Your task to perform on an android device: find which apps use the phone's location Image 0: 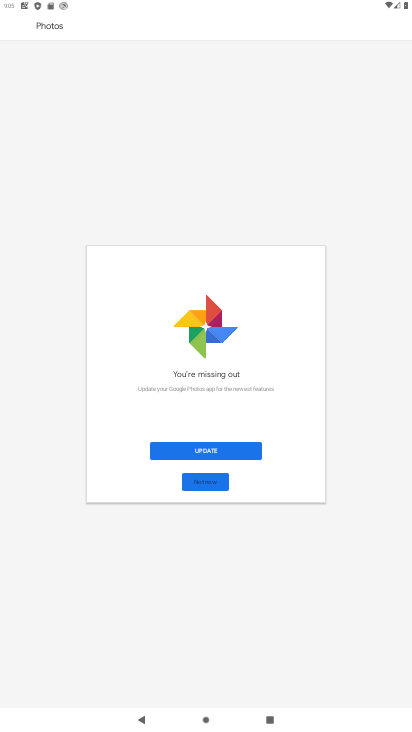
Step 0: click (242, 453)
Your task to perform on an android device: find which apps use the phone's location Image 1: 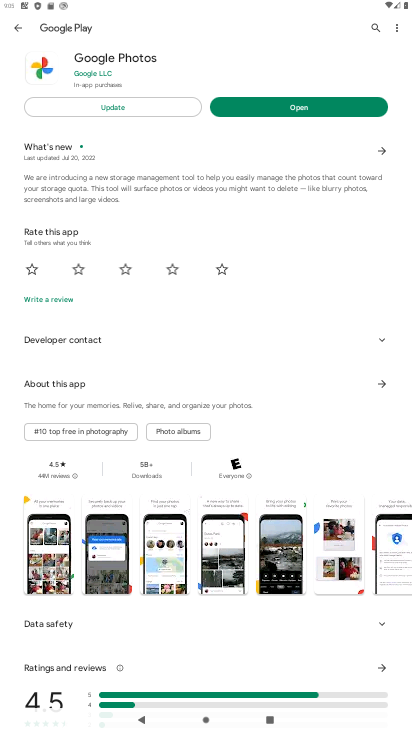
Step 1: click (169, 108)
Your task to perform on an android device: find which apps use the phone's location Image 2: 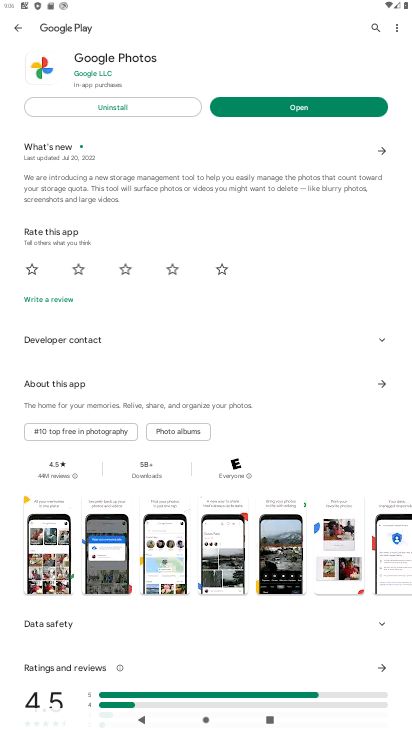
Step 2: click (331, 105)
Your task to perform on an android device: find which apps use the phone's location Image 3: 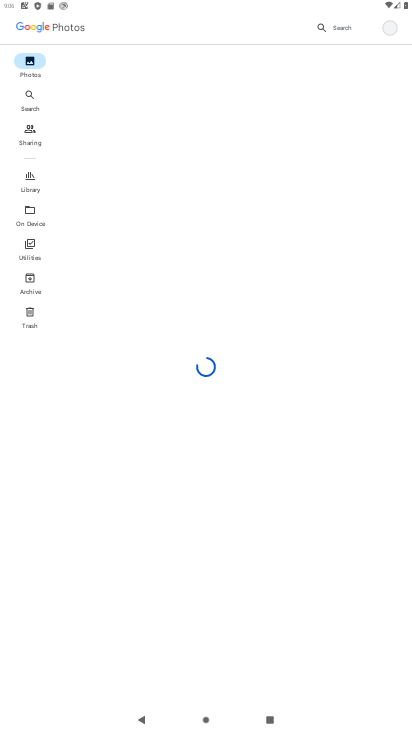
Step 3: task complete